Your task to perform on an android device: search for starred emails in the gmail app Image 0: 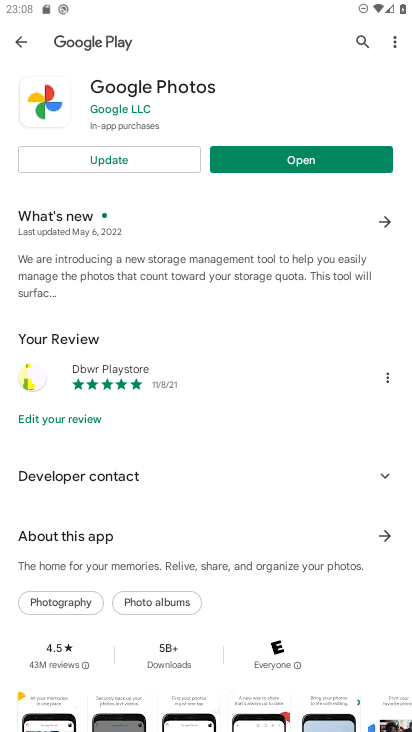
Step 0: press home button
Your task to perform on an android device: search for starred emails in the gmail app Image 1: 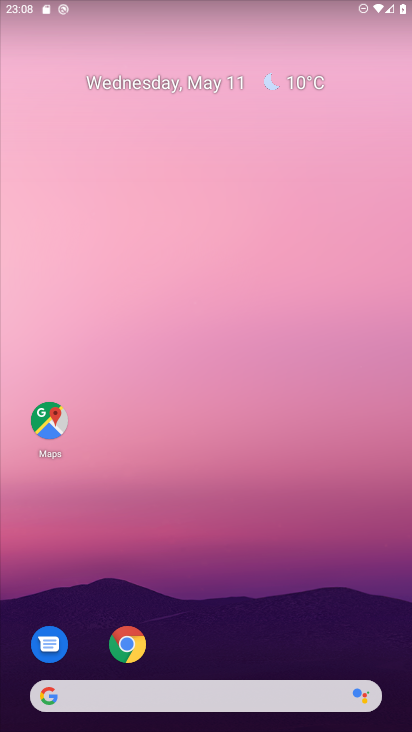
Step 1: drag from (297, 615) to (236, 6)
Your task to perform on an android device: search for starred emails in the gmail app Image 2: 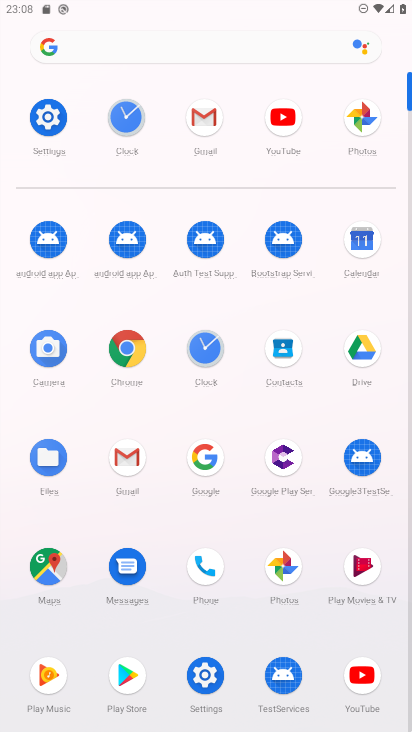
Step 2: click (207, 114)
Your task to perform on an android device: search for starred emails in the gmail app Image 3: 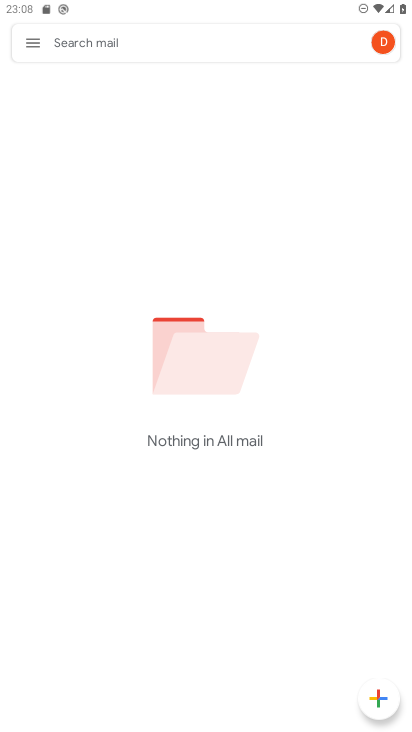
Step 3: click (33, 48)
Your task to perform on an android device: search for starred emails in the gmail app Image 4: 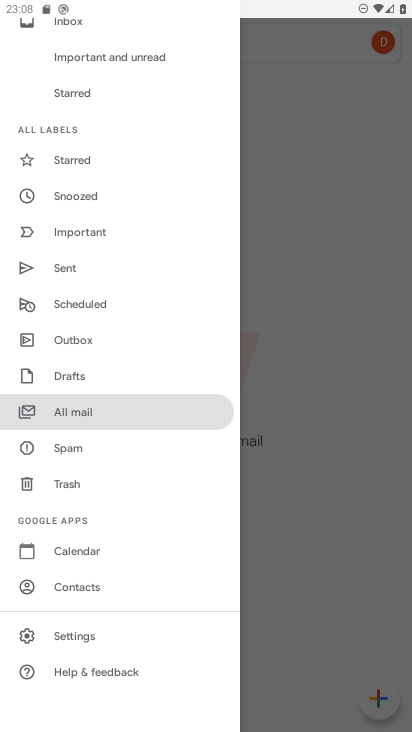
Step 4: click (77, 156)
Your task to perform on an android device: search for starred emails in the gmail app Image 5: 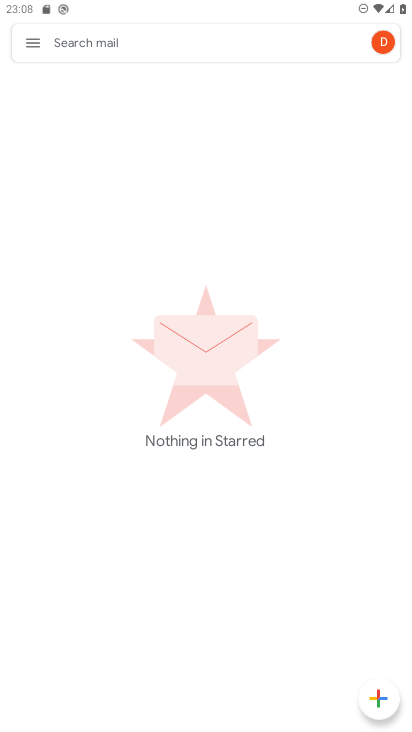
Step 5: task complete